Your task to perform on an android device: move an email to a new category in the gmail app Image 0: 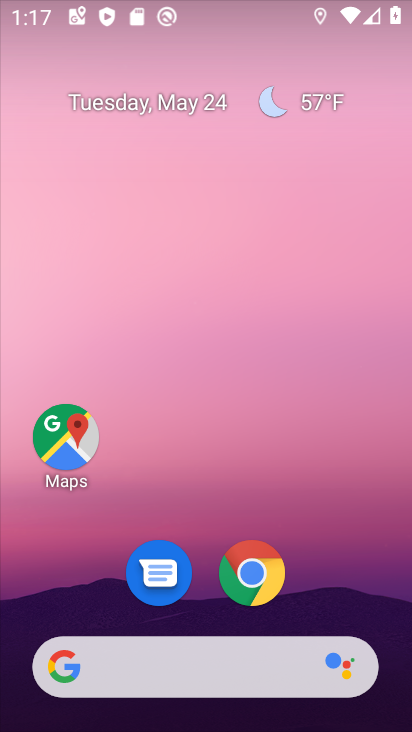
Step 0: click (304, 71)
Your task to perform on an android device: move an email to a new category in the gmail app Image 1: 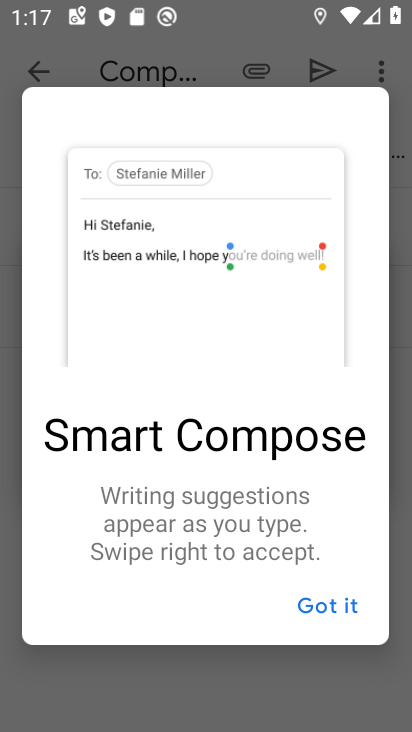
Step 1: press home button
Your task to perform on an android device: move an email to a new category in the gmail app Image 2: 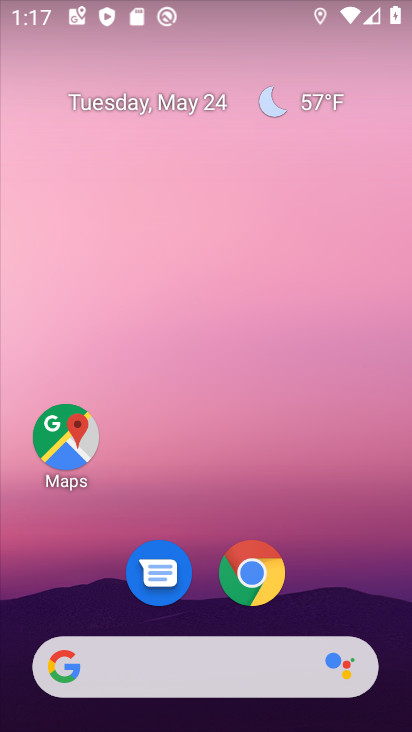
Step 2: drag from (310, 565) to (268, 48)
Your task to perform on an android device: move an email to a new category in the gmail app Image 3: 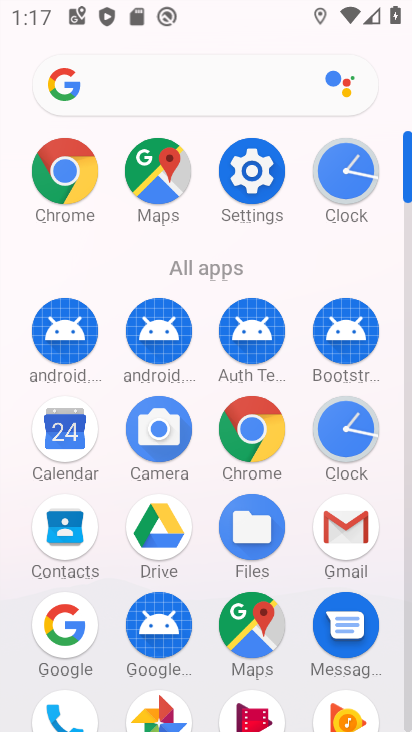
Step 3: click (330, 520)
Your task to perform on an android device: move an email to a new category in the gmail app Image 4: 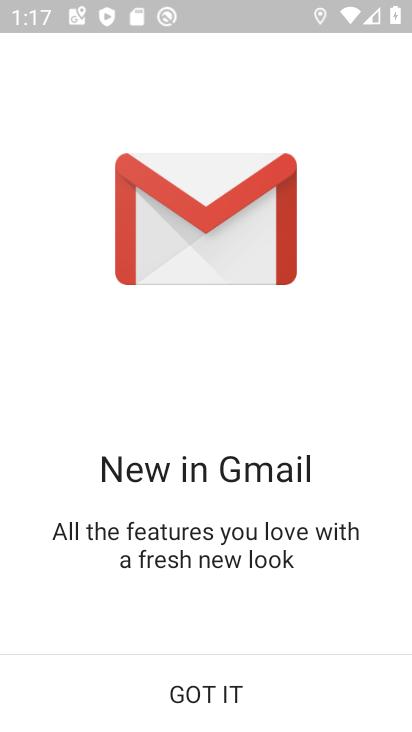
Step 4: click (253, 692)
Your task to perform on an android device: move an email to a new category in the gmail app Image 5: 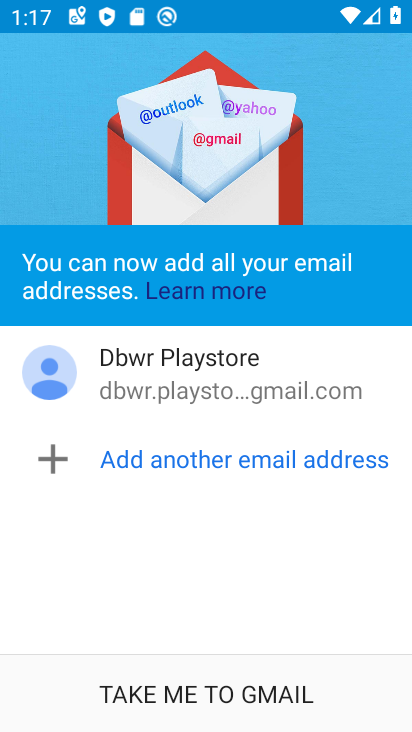
Step 5: click (263, 686)
Your task to perform on an android device: move an email to a new category in the gmail app Image 6: 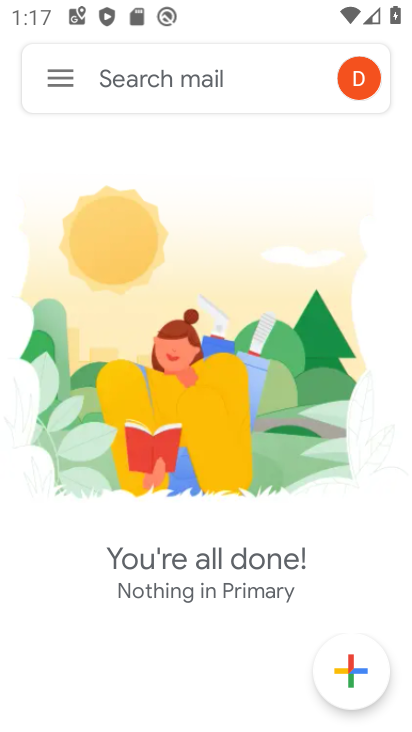
Step 6: click (69, 99)
Your task to perform on an android device: move an email to a new category in the gmail app Image 7: 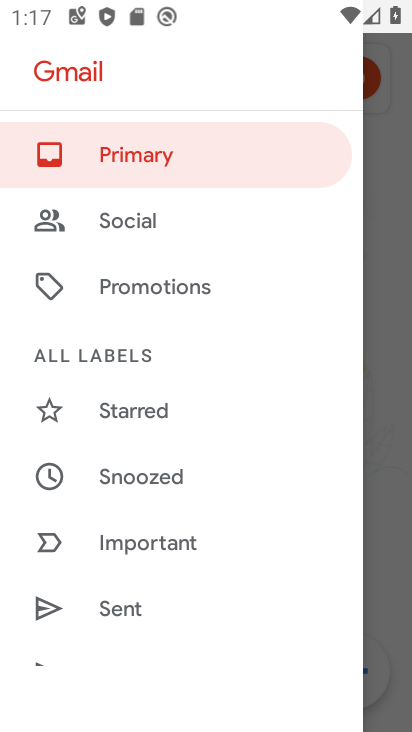
Step 7: drag from (211, 617) to (240, 301)
Your task to perform on an android device: move an email to a new category in the gmail app Image 8: 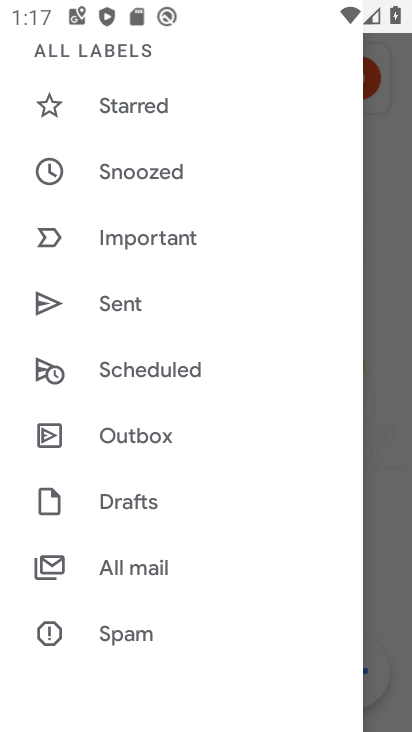
Step 8: drag from (202, 588) to (232, 198)
Your task to perform on an android device: move an email to a new category in the gmail app Image 9: 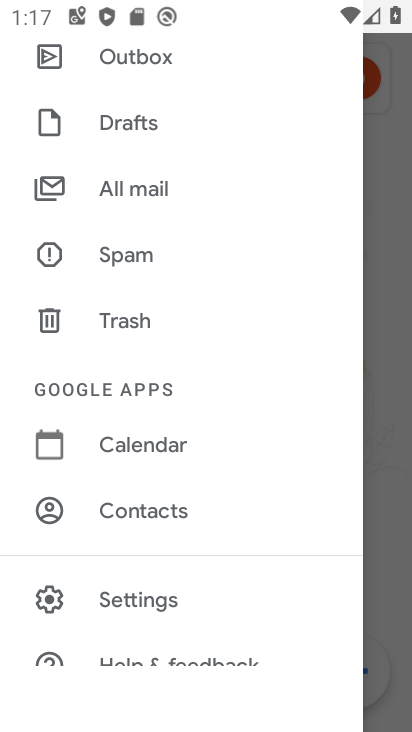
Step 9: drag from (181, 590) to (227, 307)
Your task to perform on an android device: move an email to a new category in the gmail app Image 10: 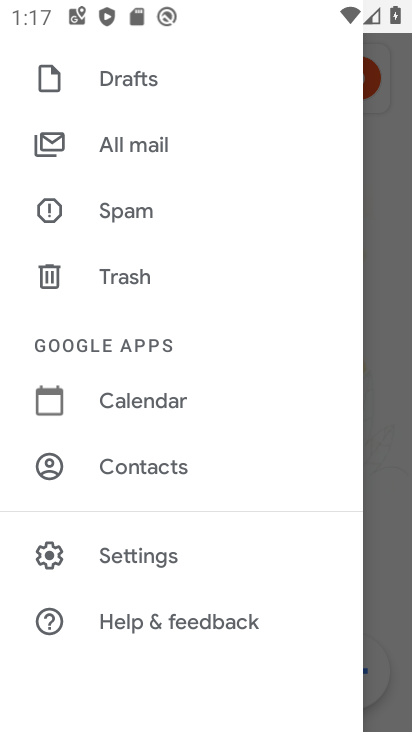
Step 10: click (157, 156)
Your task to perform on an android device: move an email to a new category in the gmail app Image 11: 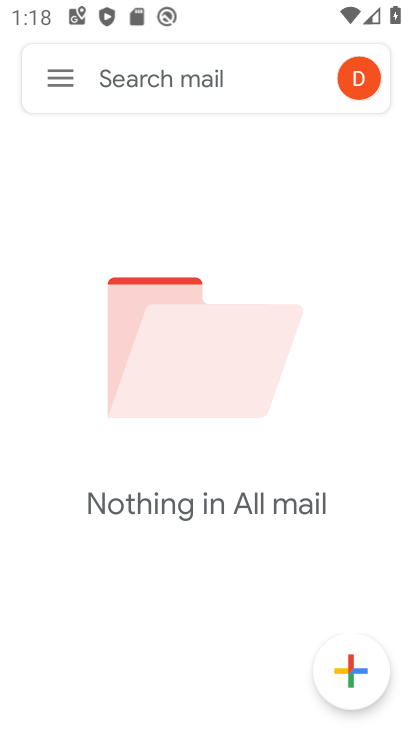
Step 11: task complete